Your task to perform on an android device: Open Maps and search for coffee Image 0: 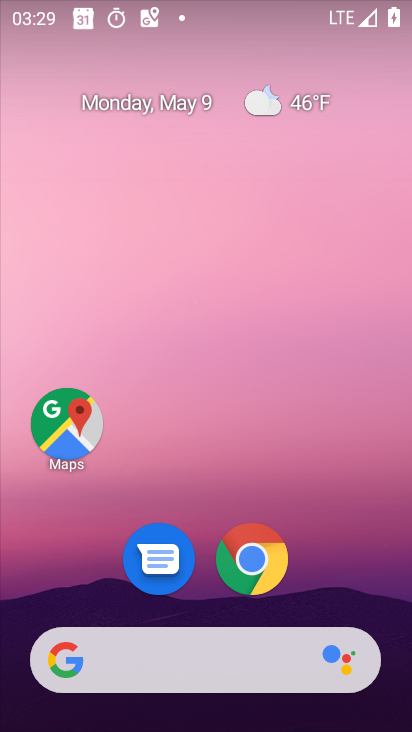
Step 0: click (67, 423)
Your task to perform on an android device: Open Maps and search for coffee Image 1: 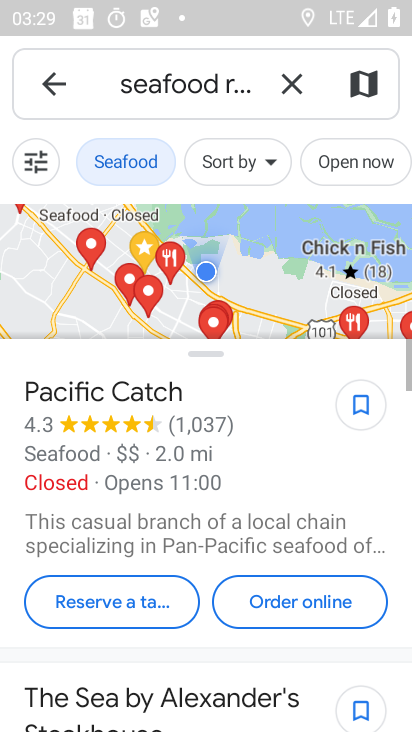
Step 1: click (289, 84)
Your task to perform on an android device: Open Maps and search for coffee Image 2: 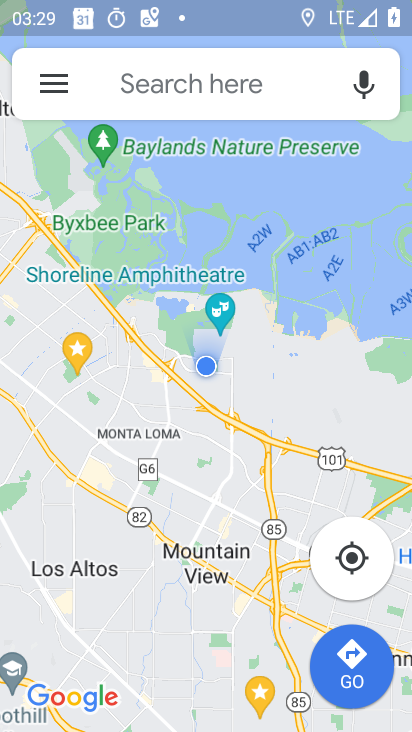
Step 2: click (288, 85)
Your task to perform on an android device: Open Maps and search for coffee Image 3: 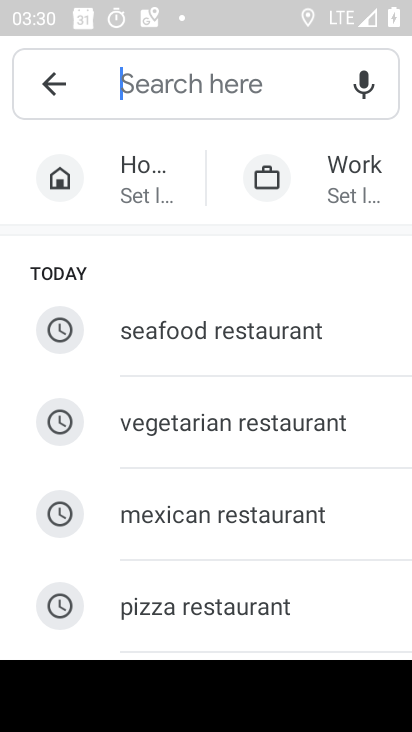
Step 3: type "coffee"
Your task to perform on an android device: Open Maps and search for coffee Image 4: 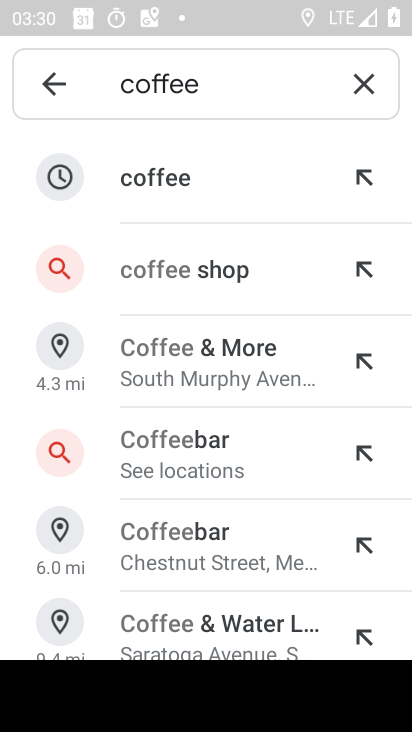
Step 4: click (176, 167)
Your task to perform on an android device: Open Maps and search for coffee Image 5: 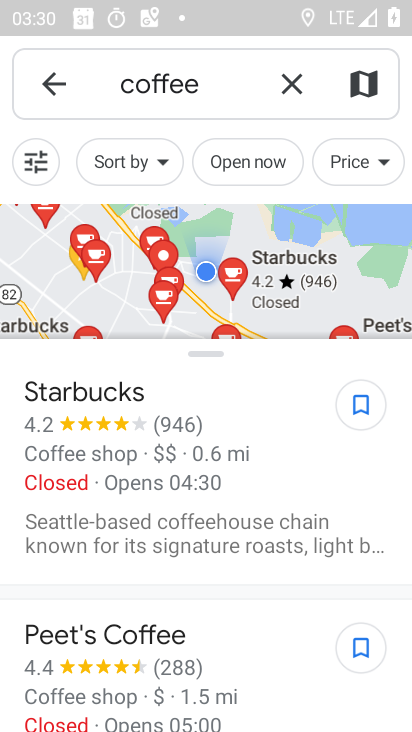
Step 5: task complete